Your task to perform on an android device: toggle notifications settings in the gmail app Image 0: 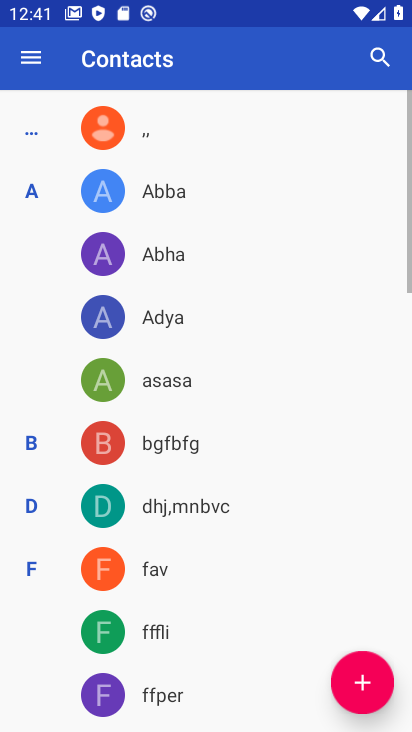
Step 0: press home button
Your task to perform on an android device: toggle notifications settings in the gmail app Image 1: 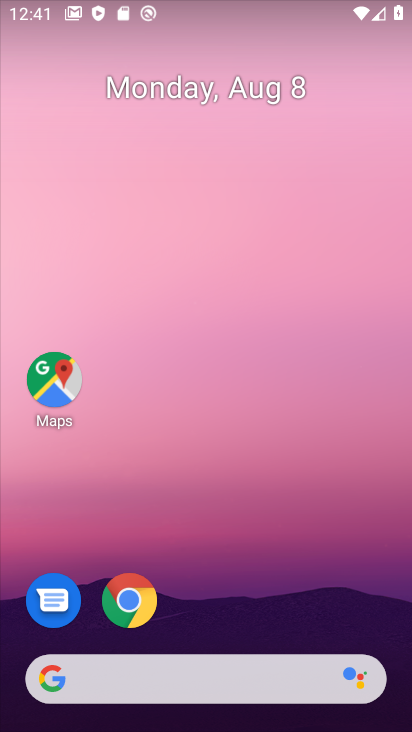
Step 1: drag from (270, 623) to (285, 186)
Your task to perform on an android device: toggle notifications settings in the gmail app Image 2: 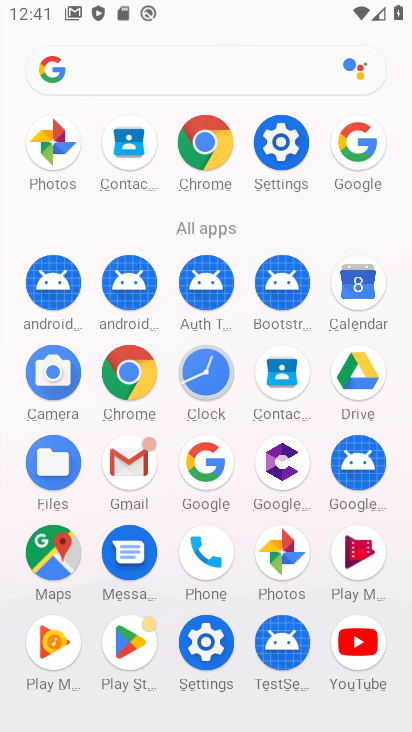
Step 2: click (124, 469)
Your task to perform on an android device: toggle notifications settings in the gmail app Image 3: 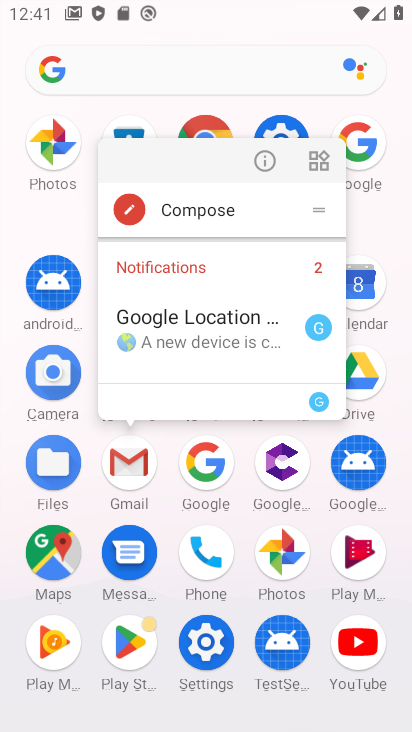
Step 3: click (254, 154)
Your task to perform on an android device: toggle notifications settings in the gmail app Image 4: 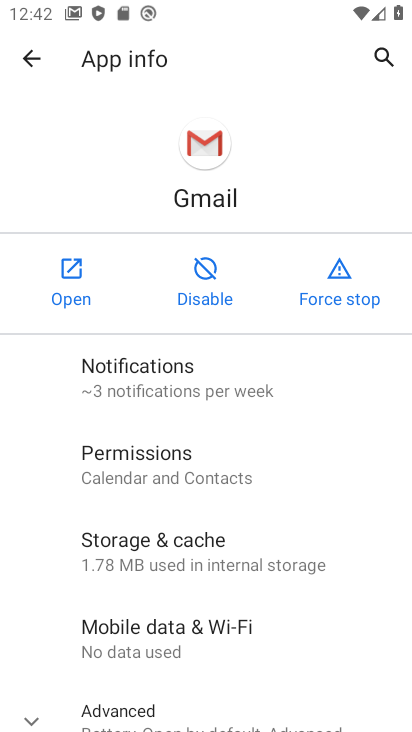
Step 4: click (168, 388)
Your task to perform on an android device: toggle notifications settings in the gmail app Image 5: 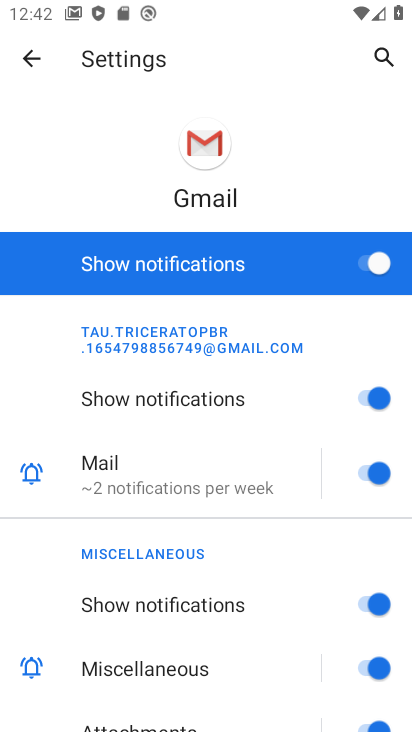
Step 5: click (289, 263)
Your task to perform on an android device: toggle notifications settings in the gmail app Image 6: 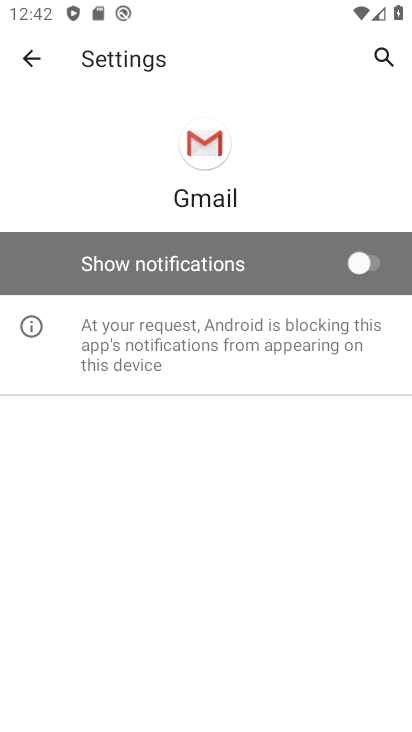
Step 6: task complete